Your task to perform on an android device: turn notification dots on Image 0: 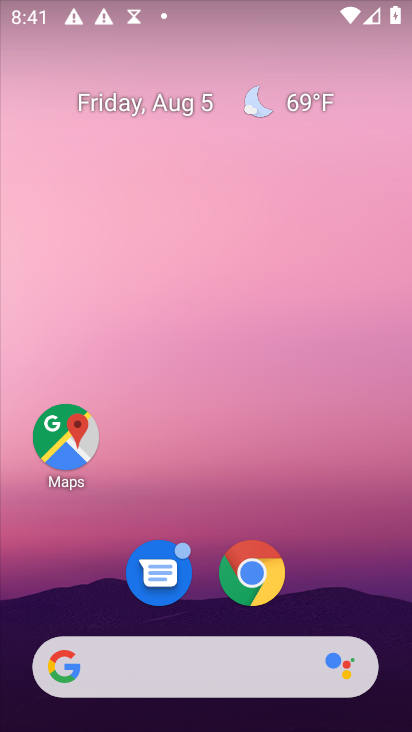
Step 0: drag from (186, 669) to (245, 110)
Your task to perform on an android device: turn notification dots on Image 1: 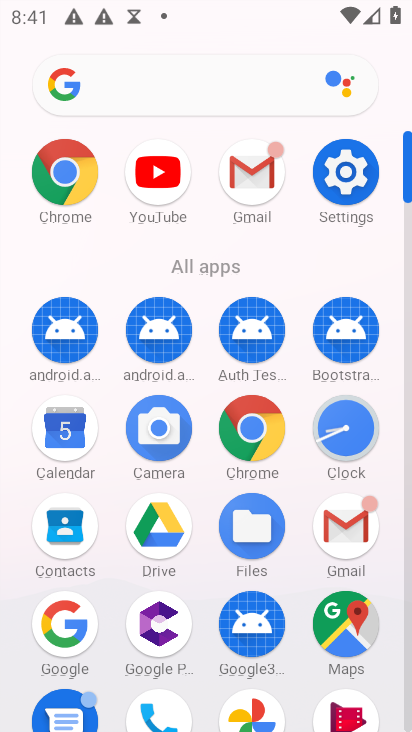
Step 1: click (345, 173)
Your task to perform on an android device: turn notification dots on Image 2: 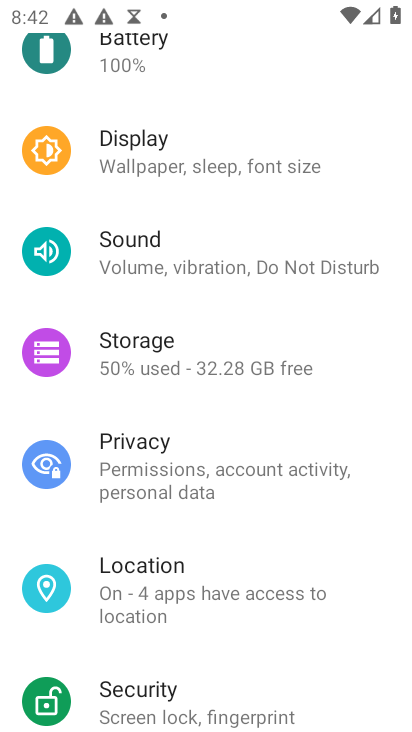
Step 2: drag from (246, 216) to (228, 392)
Your task to perform on an android device: turn notification dots on Image 3: 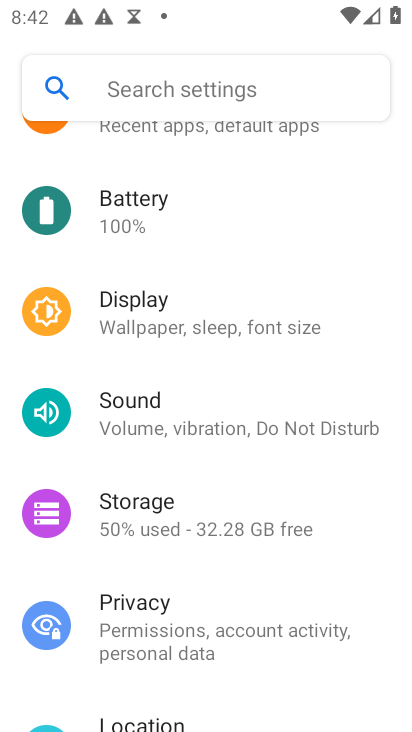
Step 3: drag from (229, 242) to (235, 448)
Your task to perform on an android device: turn notification dots on Image 4: 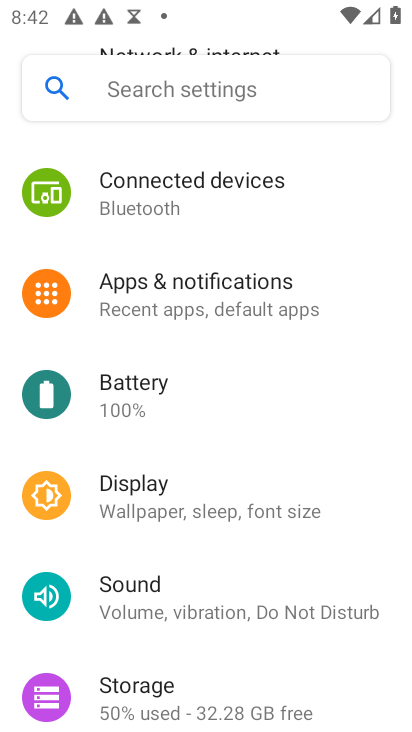
Step 4: click (220, 296)
Your task to perform on an android device: turn notification dots on Image 5: 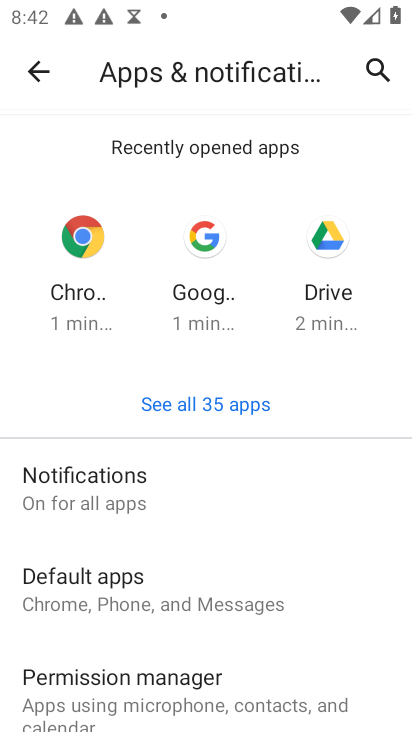
Step 5: click (121, 474)
Your task to perform on an android device: turn notification dots on Image 6: 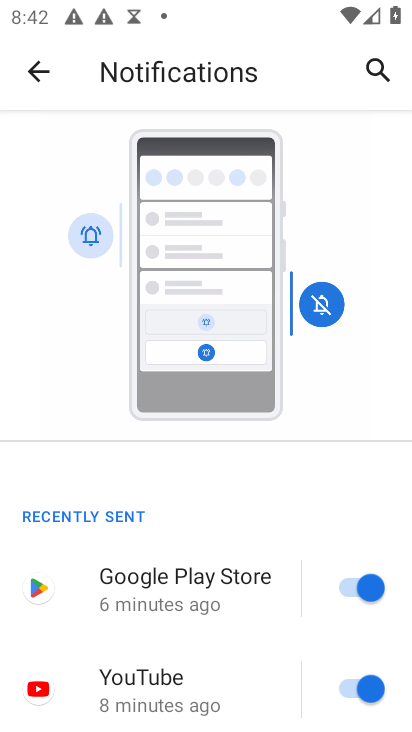
Step 6: drag from (187, 507) to (302, 316)
Your task to perform on an android device: turn notification dots on Image 7: 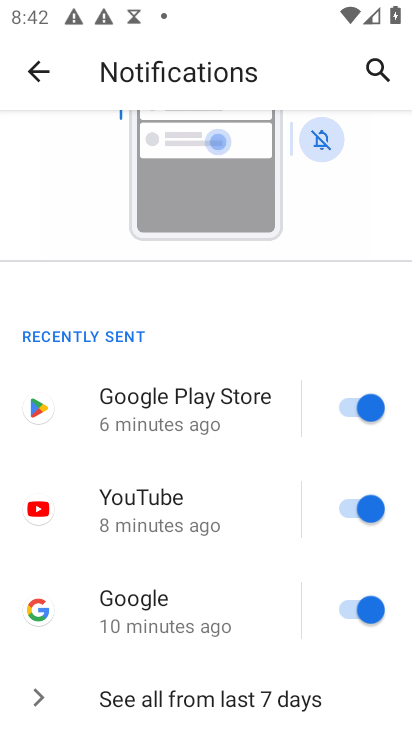
Step 7: drag from (172, 556) to (274, 399)
Your task to perform on an android device: turn notification dots on Image 8: 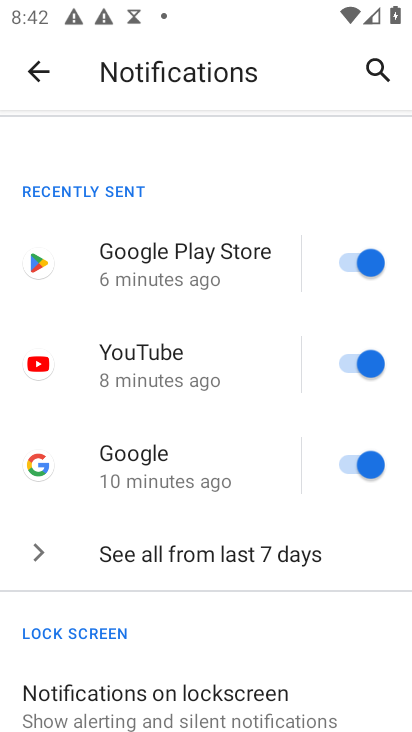
Step 8: drag from (204, 640) to (284, 441)
Your task to perform on an android device: turn notification dots on Image 9: 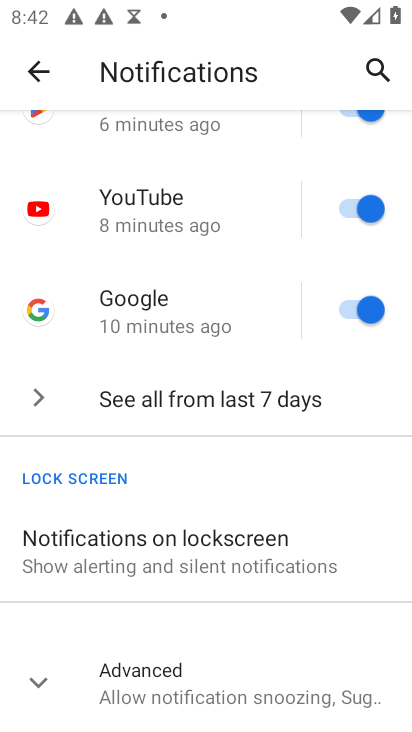
Step 9: click (220, 700)
Your task to perform on an android device: turn notification dots on Image 10: 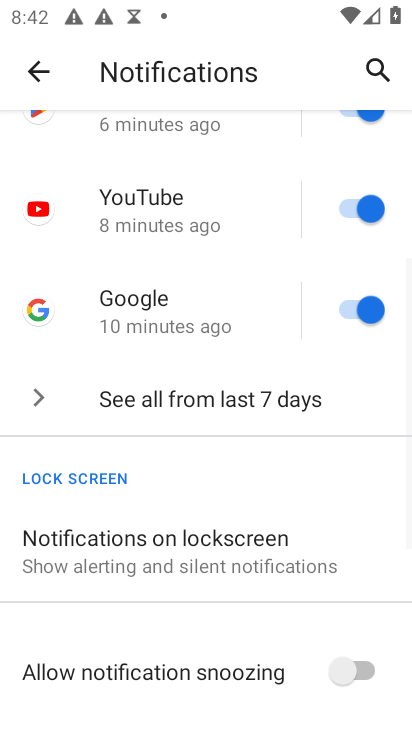
Step 10: task complete